Your task to perform on an android device: check the backup settings in the google photos Image 0: 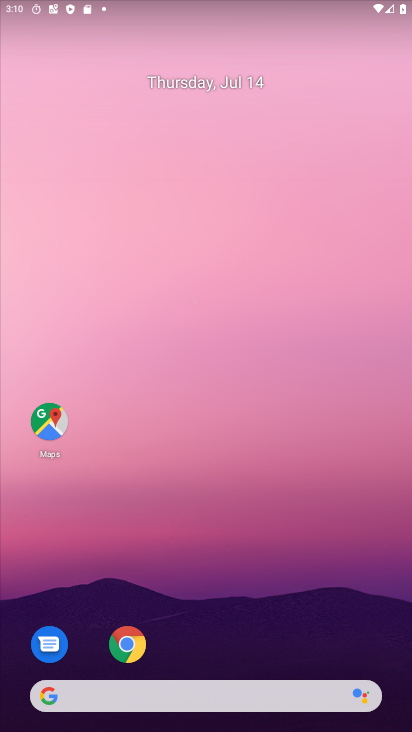
Step 0: drag from (4, 704) to (245, 32)
Your task to perform on an android device: check the backup settings in the google photos Image 1: 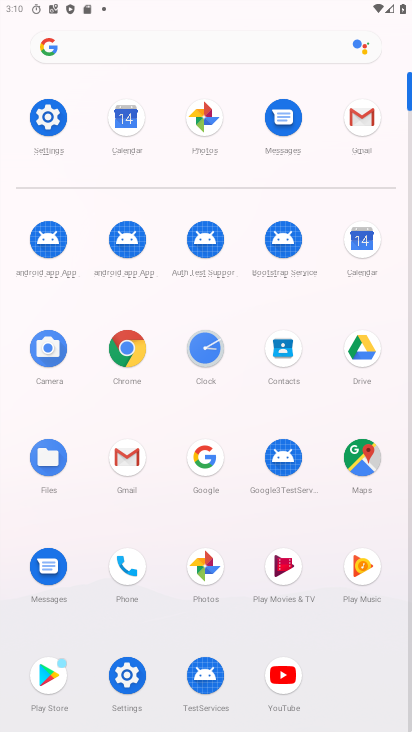
Step 1: click (200, 581)
Your task to perform on an android device: check the backup settings in the google photos Image 2: 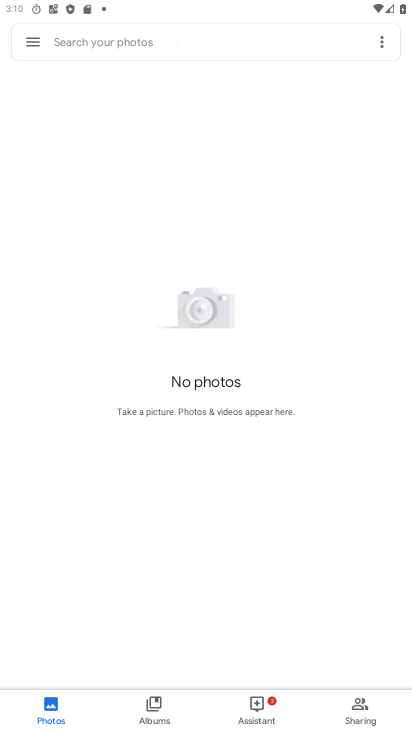
Step 2: click (26, 31)
Your task to perform on an android device: check the backup settings in the google photos Image 3: 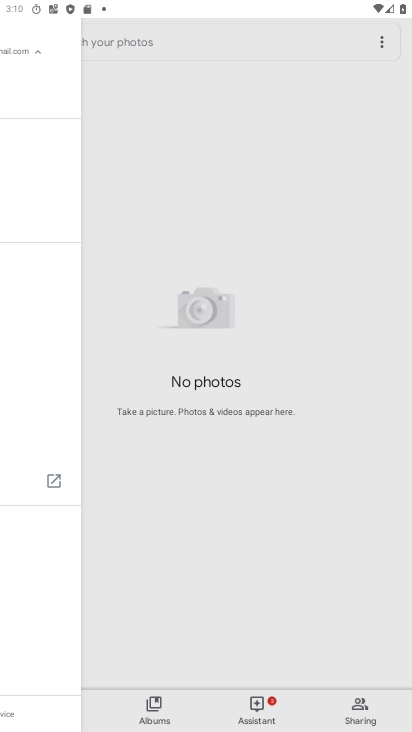
Step 3: click (26, 36)
Your task to perform on an android device: check the backup settings in the google photos Image 4: 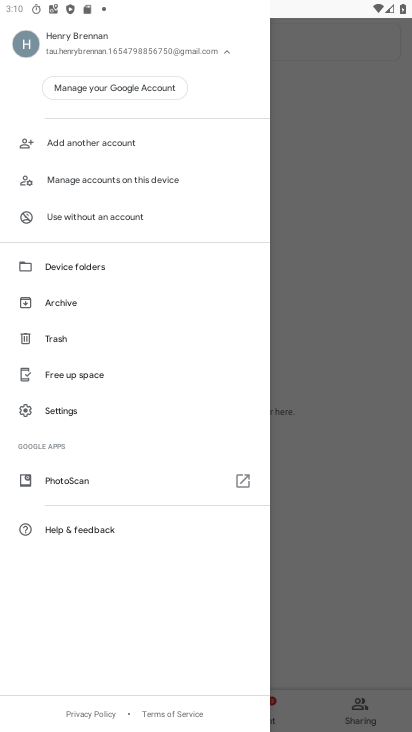
Step 4: click (52, 403)
Your task to perform on an android device: check the backup settings in the google photos Image 5: 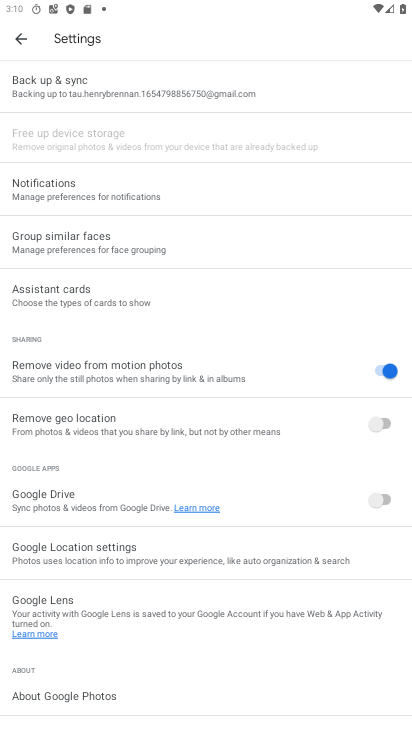
Step 5: click (87, 89)
Your task to perform on an android device: check the backup settings in the google photos Image 6: 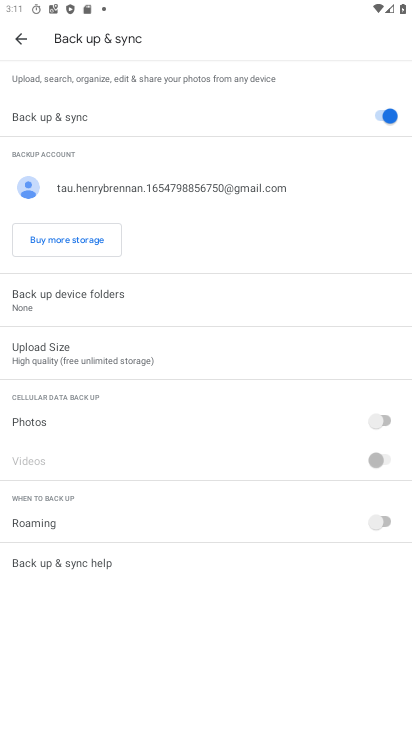
Step 6: click (85, 114)
Your task to perform on an android device: check the backup settings in the google photos Image 7: 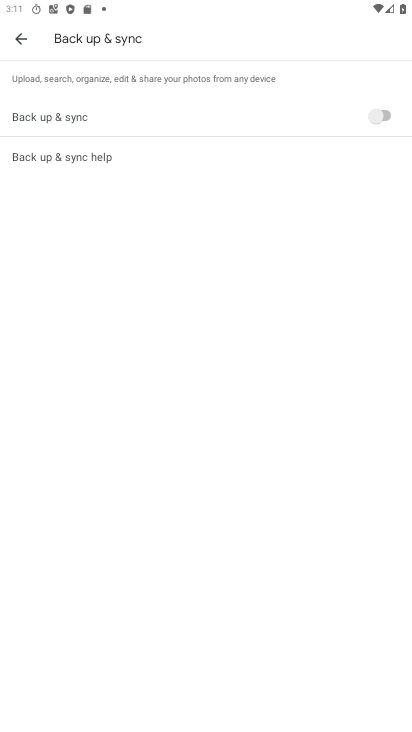
Step 7: click (85, 114)
Your task to perform on an android device: check the backup settings in the google photos Image 8: 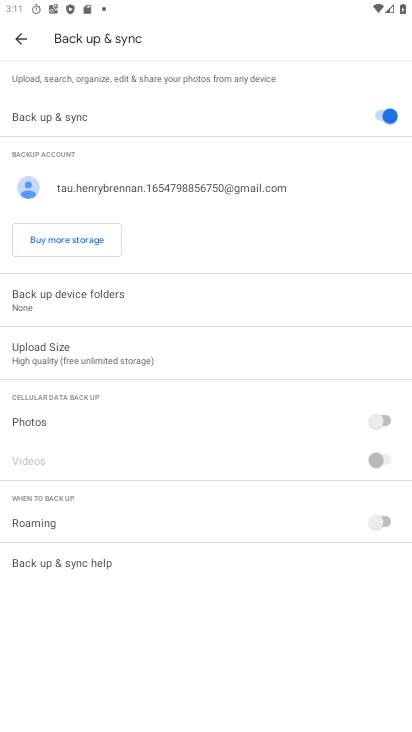
Step 8: task complete